Your task to perform on an android device: What is the recent news? Image 0: 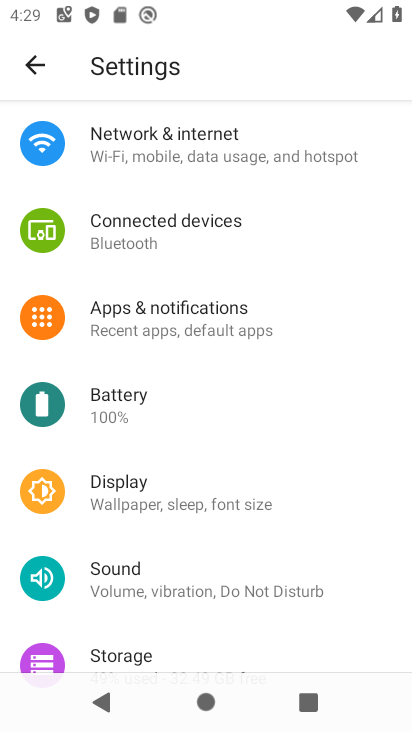
Step 0: press home button
Your task to perform on an android device: What is the recent news? Image 1: 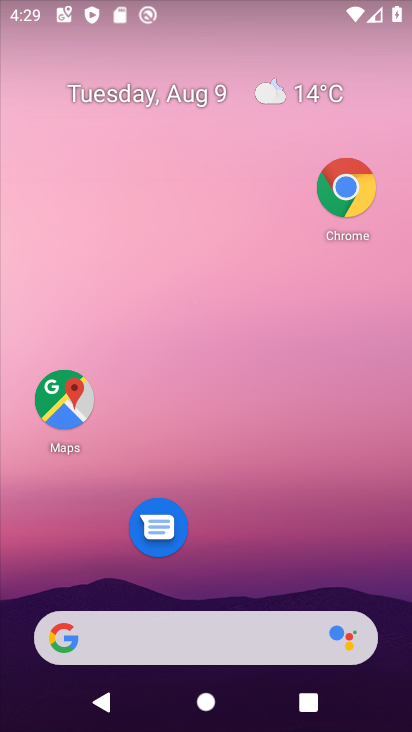
Step 1: click (154, 620)
Your task to perform on an android device: What is the recent news? Image 2: 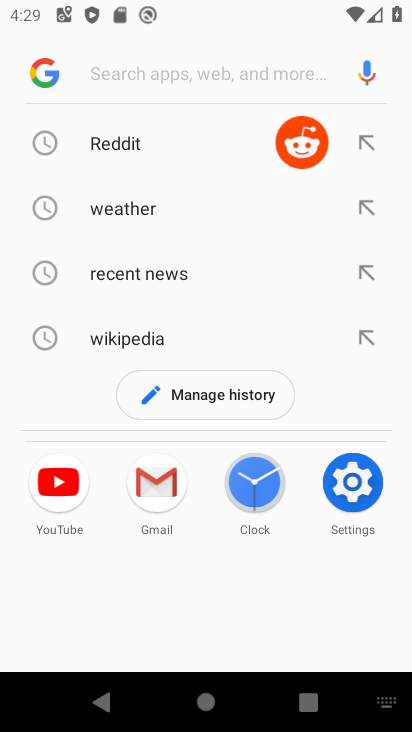
Step 2: click (55, 79)
Your task to perform on an android device: What is the recent news? Image 3: 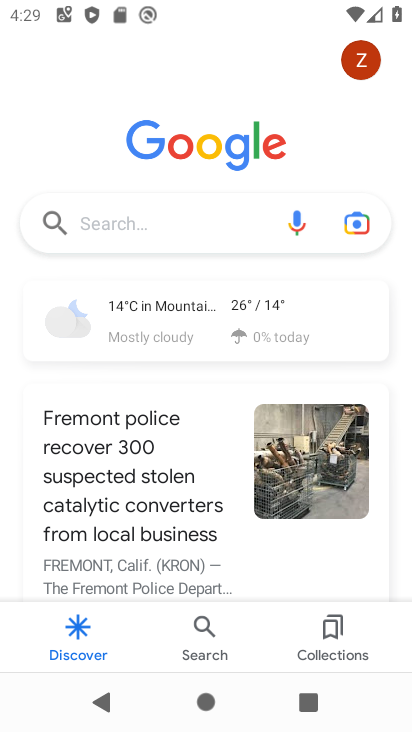
Step 3: task complete